Your task to perform on an android device: Open Youtube and go to the subscriptions tab Image 0: 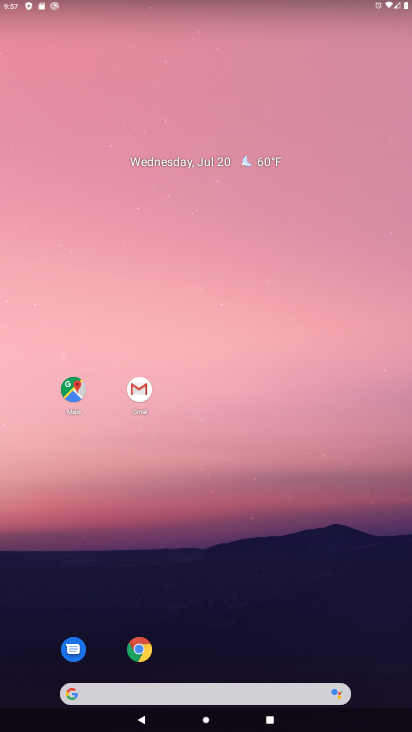
Step 0: drag from (401, 723) to (368, 67)
Your task to perform on an android device: Open Youtube and go to the subscriptions tab Image 1: 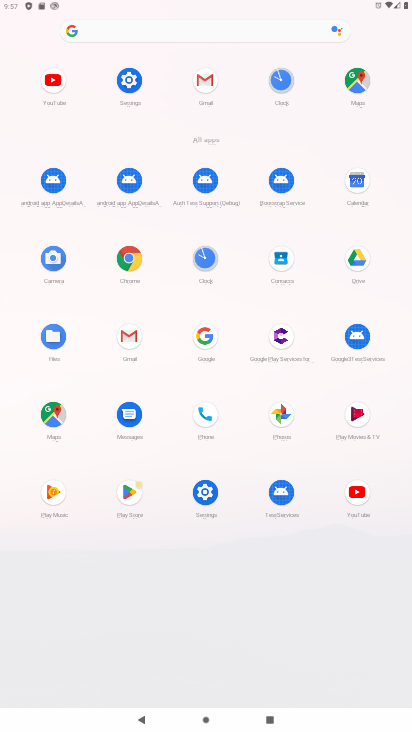
Step 1: click (355, 495)
Your task to perform on an android device: Open Youtube and go to the subscriptions tab Image 2: 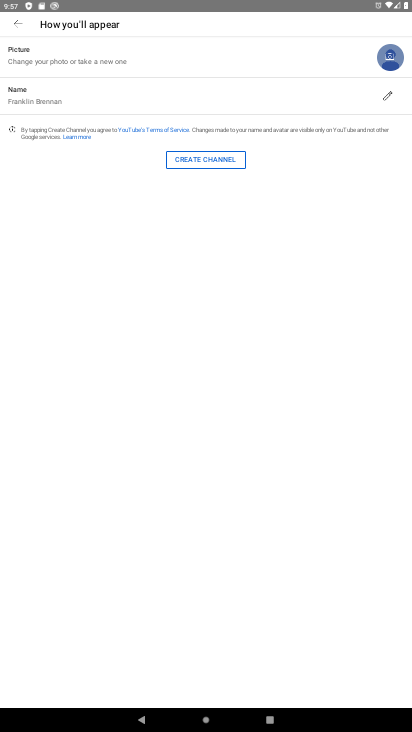
Step 2: click (15, 20)
Your task to perform on an android device: Open Youtube and go to the subscriptions tab Image 3: 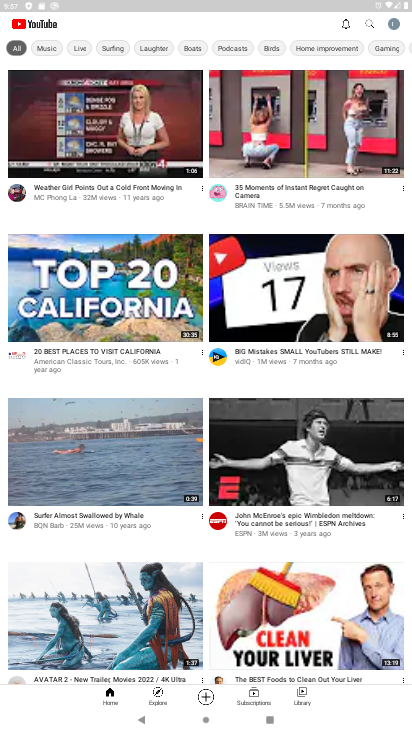
Step 3: click (254, 691)
Your task to perform on an android device: Open Youtube and go to the subscriptions tab Image 4: 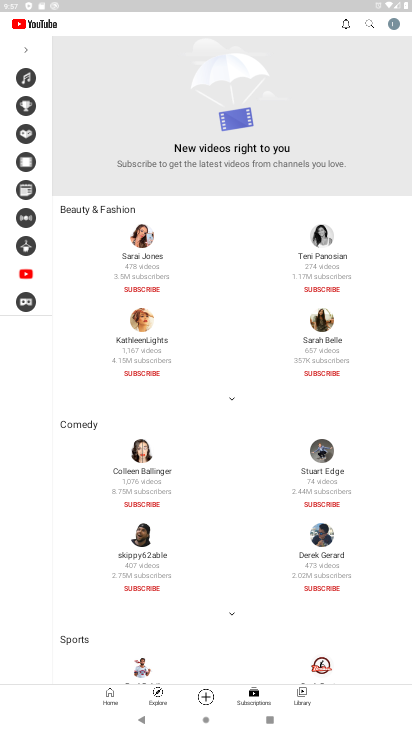
Step 4: task complete